Your task to perform on an android device: open chrome privacy settings Image 0: 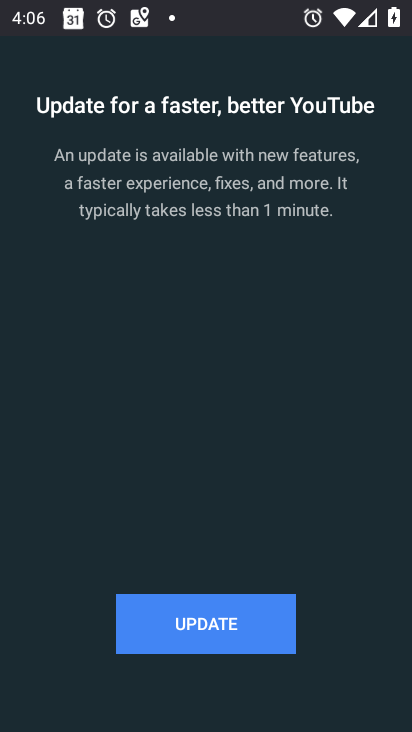
Step 0: press home button
Your task to perform on an android device: open chrome privacy settings Image 1: 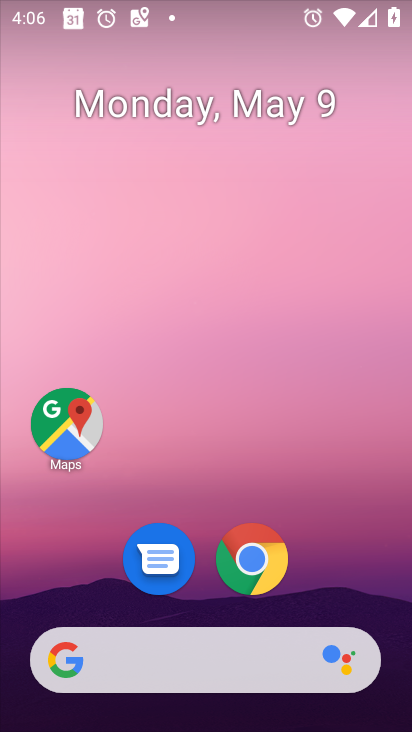
Step 1: click (250, 562)
Your task to perform on an android device: open chrome privacy settings Image 2: 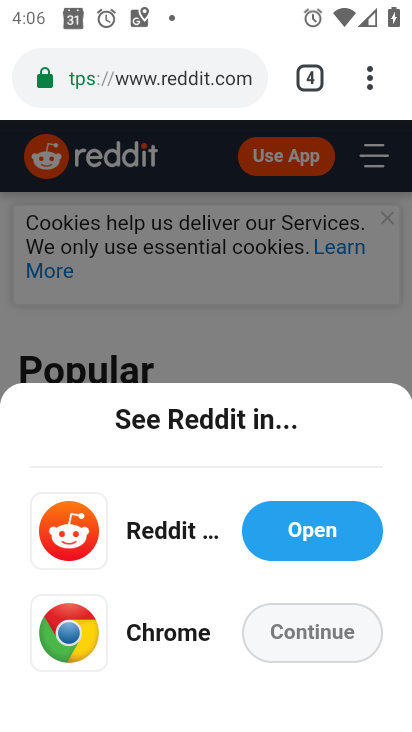
Step 2: drag from (369, 82) to (144, 610)
Your task to perform on an android device: open chrome privacy settings Image 3: 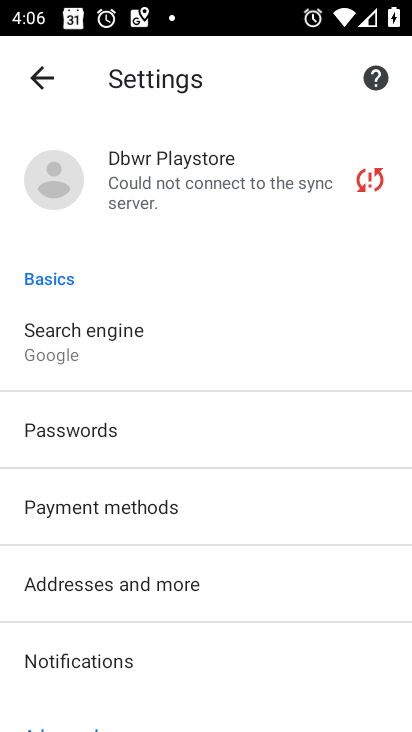
Step 3: drag from (161, 668) to (181, 440)
Your task to perform on an android device: open chrome privacy settings Image 4: 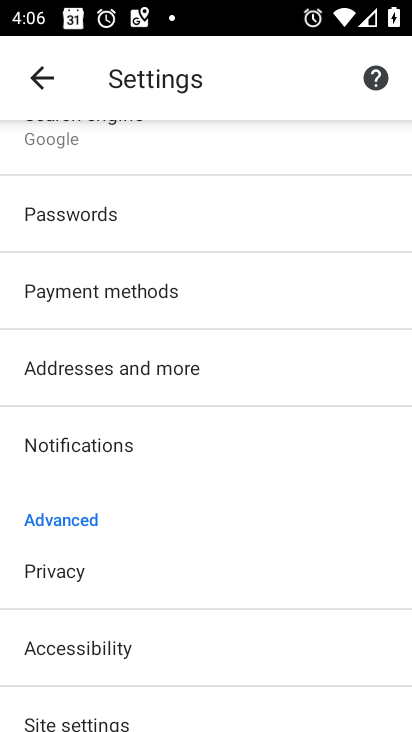
Step 4: click (71, 573)
Your task to perform on an android device: open chrome privacy settings Image 5: 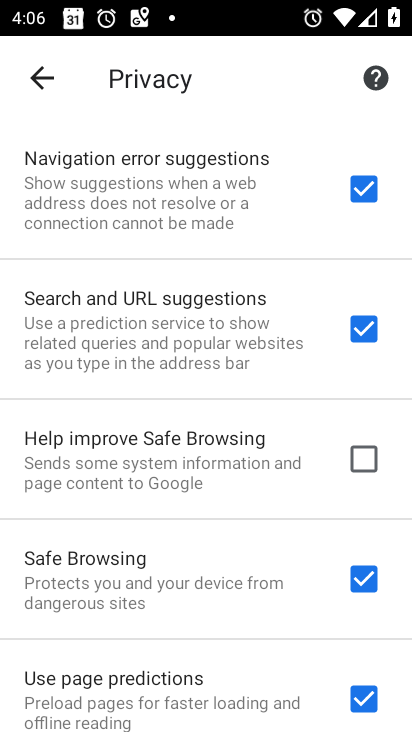
Step 5: task complete